Your task to perform on an android device: change notification settings in the gmail app Image 0: 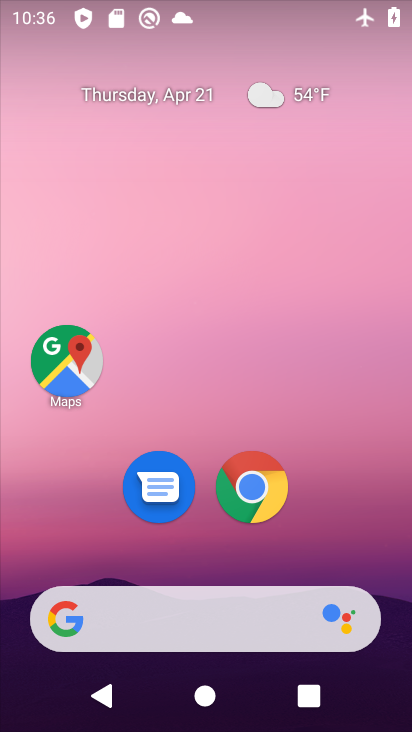
Step 0: drag from (388, 525) to (362, 120)
Your task to perform on an android device: change notification settings in the gmail app Image 1: 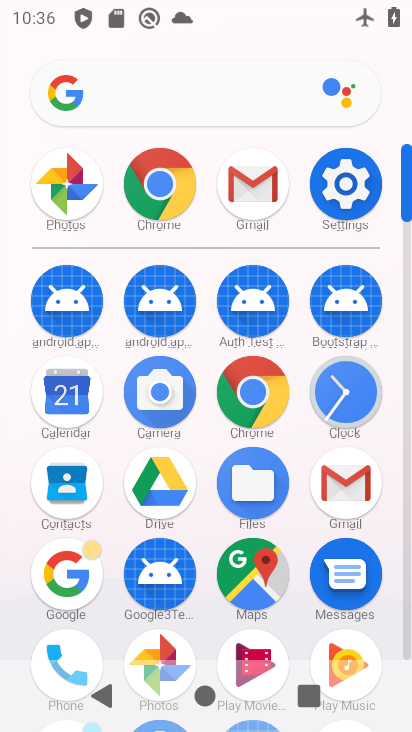
Step 1: click (329, 485)
Your task to perform on an android device: change notification settings in the gmail app Image 2: 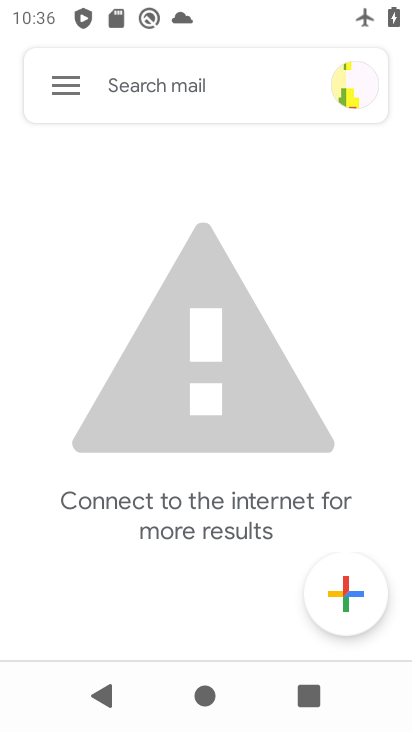
Step 2: click (64, 86)
Your task to perform on an android device: change notification settings in the gmail app Image 3: 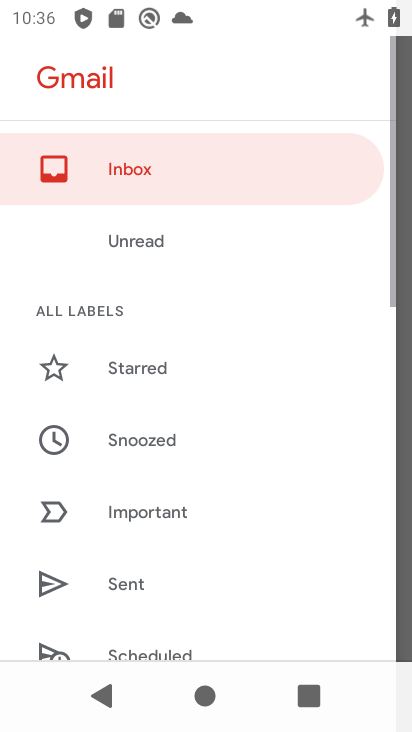
Step 3: drag from (179, 560) to (225, 248)
Your task to perform on an android device: change notification settings in the gmail app Image 4: 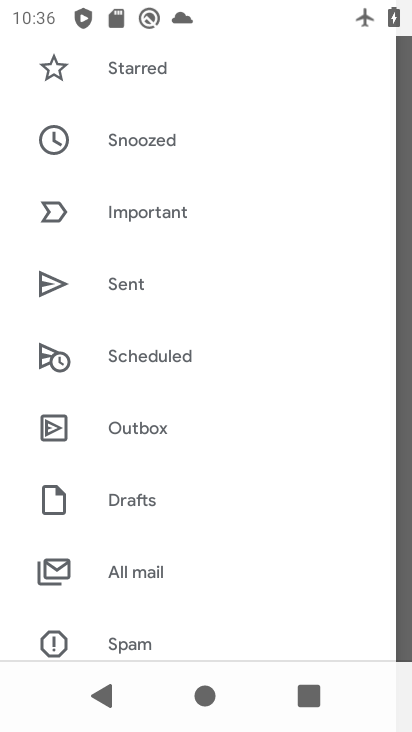
Step 4: drag from (198, 559) to (230, 180)
Your task to perform on an android device: change notification settings in the gmail app Image 5: 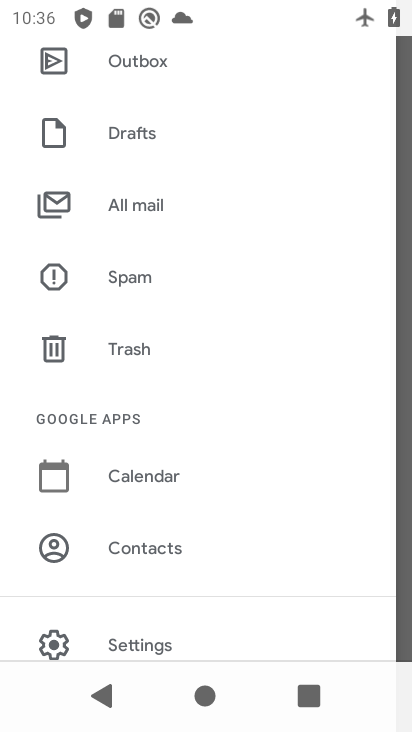
Step 5: click (162, 652)
Your task to perform on an android device: change notification settings in the gmail app Image 6: 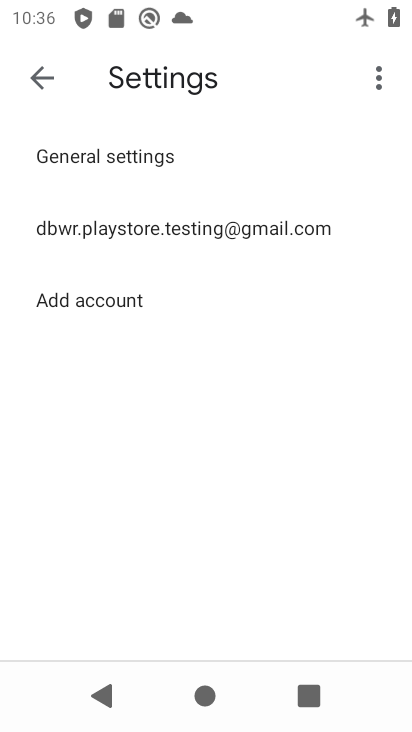
Step 6: click (125, 244)
Your task to perform on an android device: change notification settings in the gmail app Image 7: 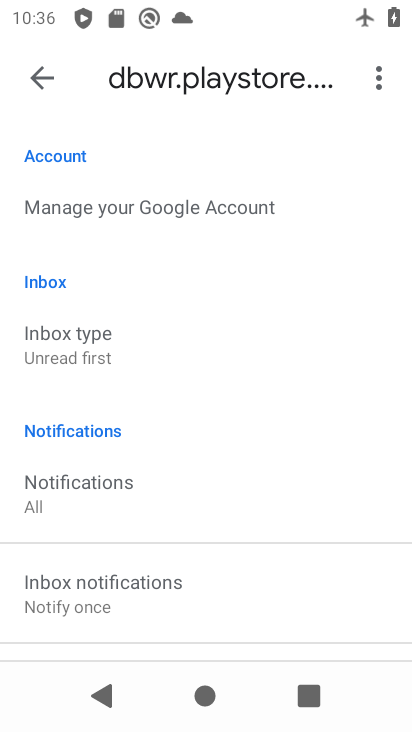
Step 7: click (70, 471)
Your task to perform on an android device: change notification settings in the gmail app Image 8: 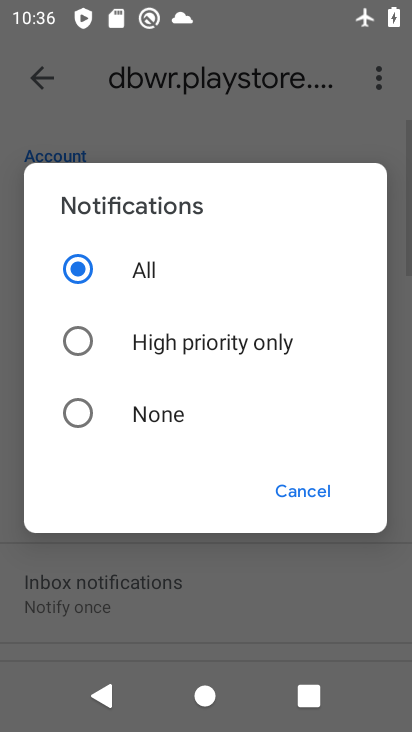
Step 8: click (170, 333)
Your task to perform on an android device: change notification settings in the gmail app Image 9: 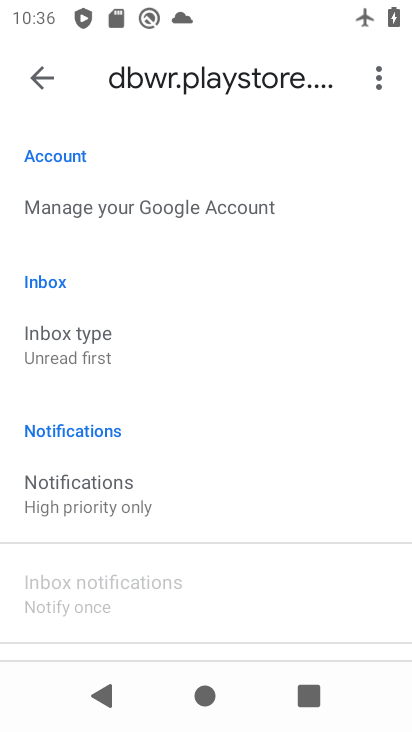
Step 9: task complete